Your task to perform on an android device: turn vacation reply on in the gmail app Image 0: 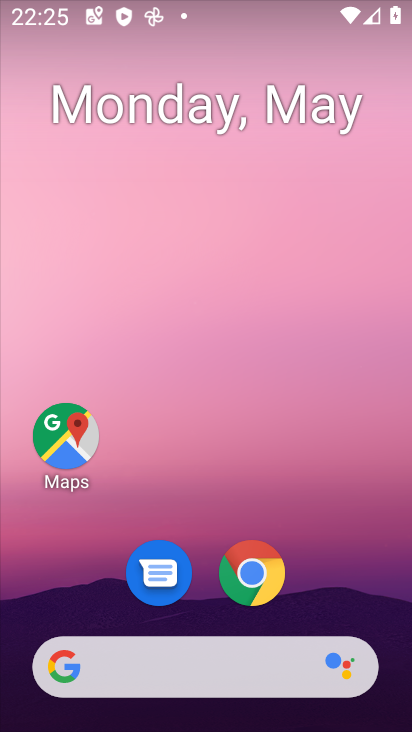
Step 0: drag from (384, 562) to (224, 4)
Your task to perform on an android device: turn vacation reply on in the gmail app Image 1: 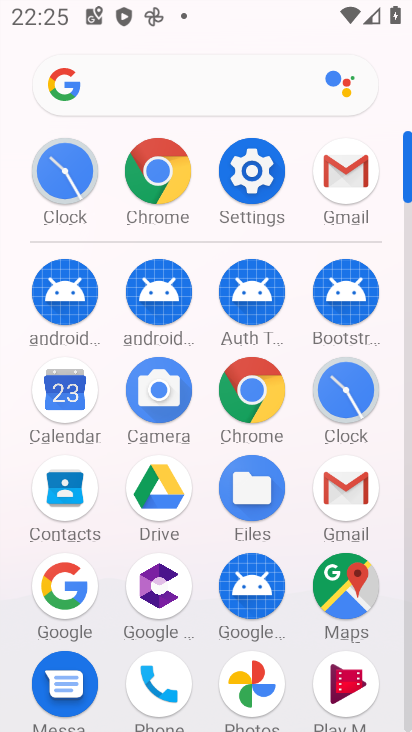
Step 1: click (334, 478)
Your task to perform on an android device: turn vacation reply on in the gmail app Image 2: 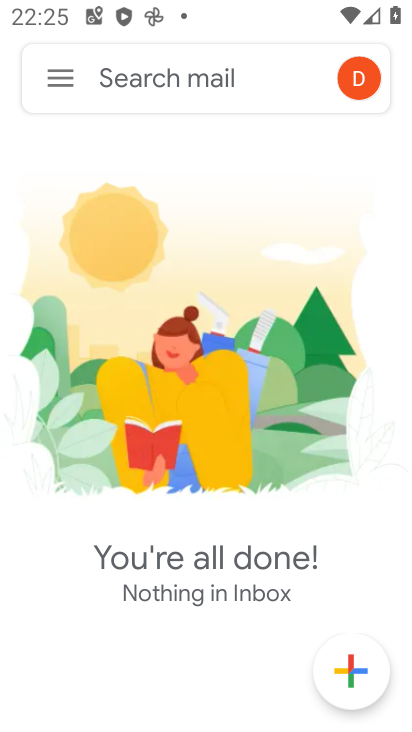
Step 2: click (68, 90)
Your task to perform on an android device: turn vacation reply on in the gmail app Image 3: 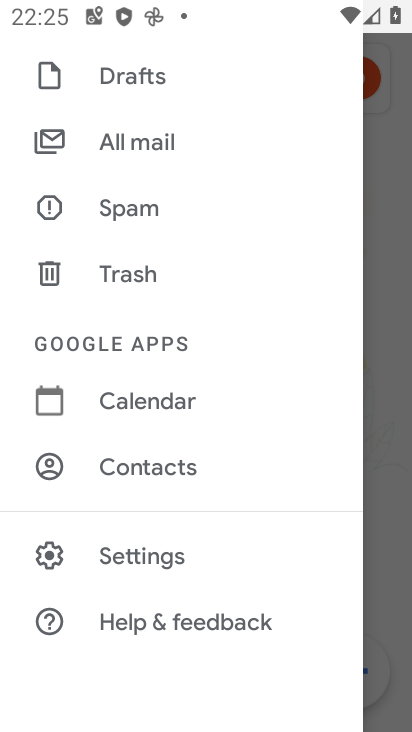
Step 3: click (157, 541)
Your task to perform on an android device: turn vacation reply on in the gmail app Image 4: 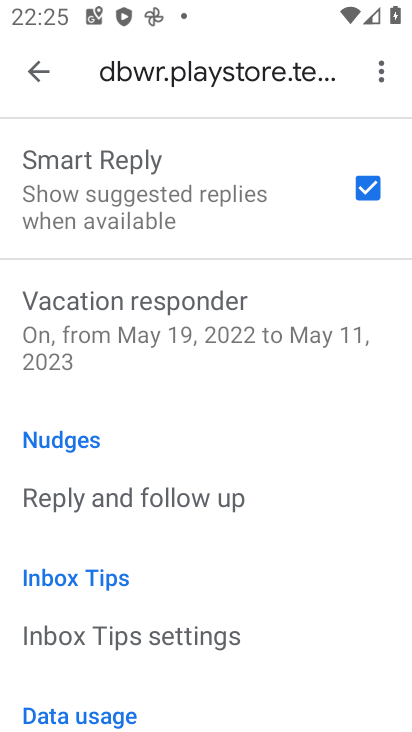
Step 4: task complete